Your task to perform on an android device: Go to sound settings Image 0: 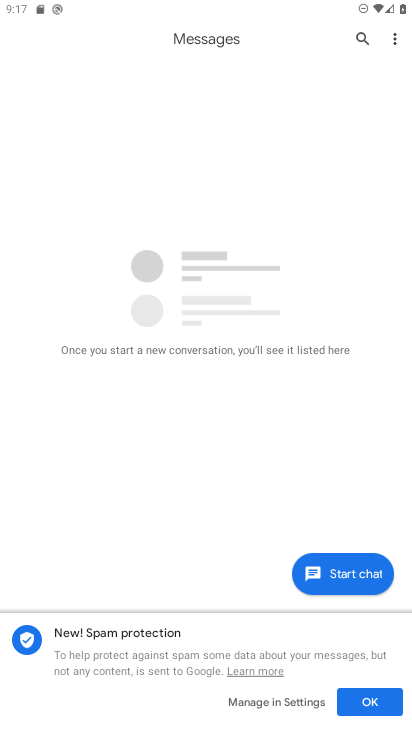
Step 0: press home button
Your task to perform on an android device: Go to sound settings Image 1: 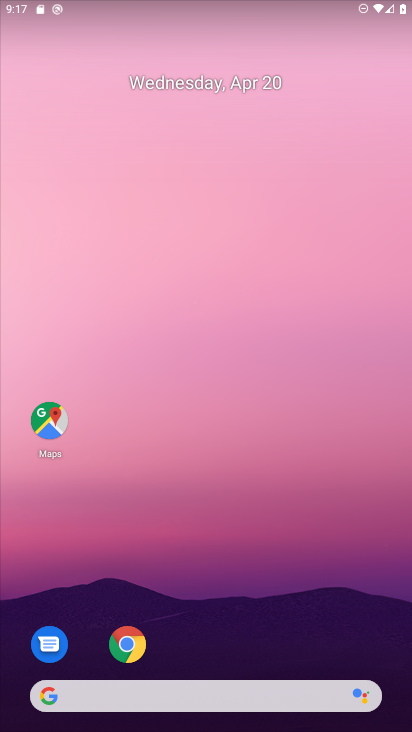
Step 1: drag from (317, 618) to (241, 76)
Your task to perform on an android device: Go to sound settings Image 2: 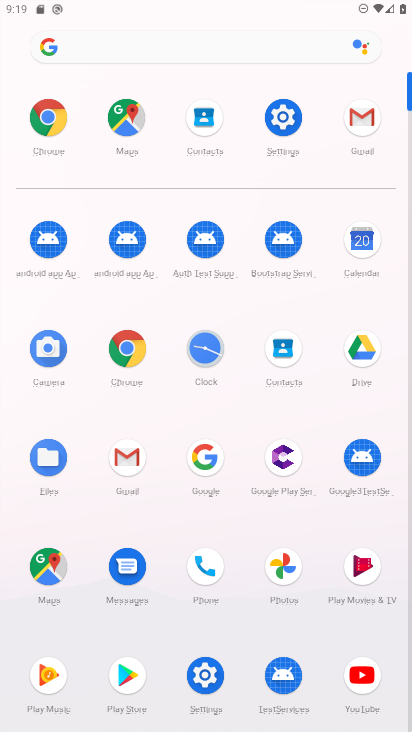
Step 2: click (204, 671)
Your task to perform on an android device: Go to sound settings Image 3: 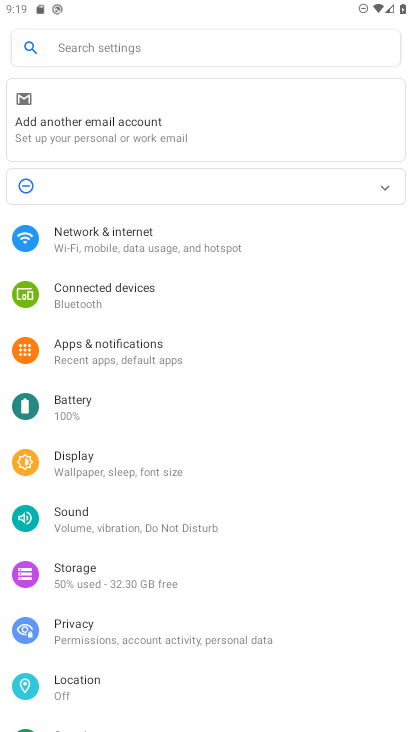
Step 3: click (83, 518)
Your task to perform on an android device: Go to sound settings Image 4: 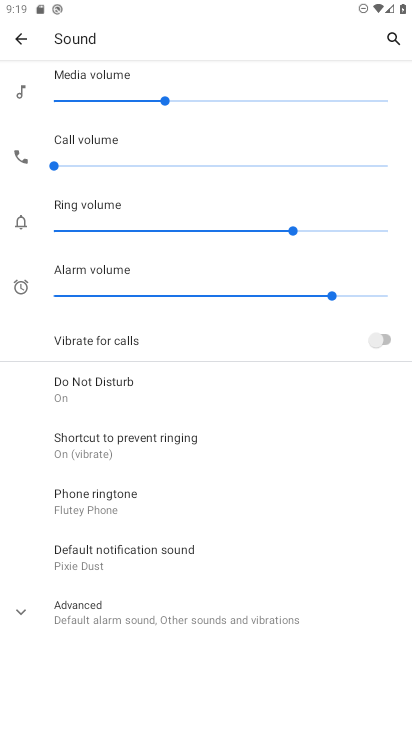
Step 4: task complete